Your task to perform on an android device: Go to Reddit.com Image 0: 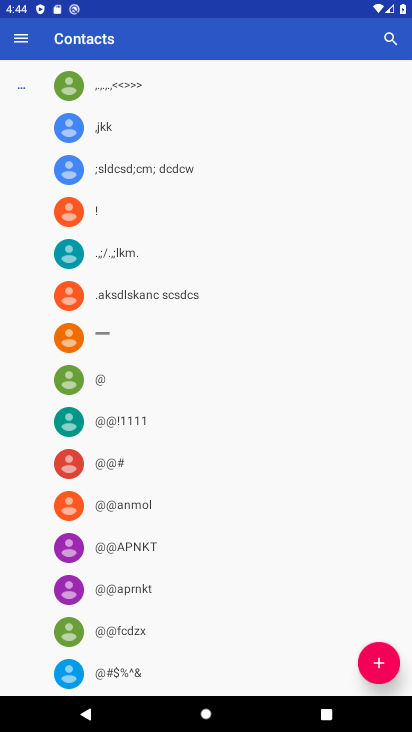
Step 0: press home button
Your task to perform on an android device: Go to Reddit.com Image 1: 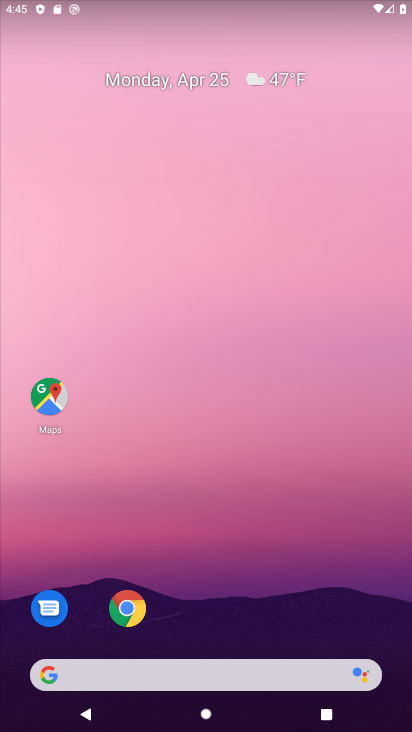
Step 1: click (119, 615)
Your task to perform on an android device: Go to Reddit.com Image 2: 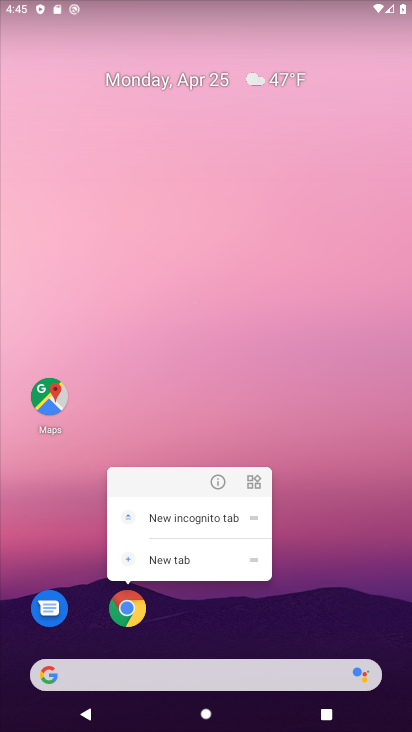
Step 2: click (119, 615)
Your task to perform on an android device: Go to Reddit.com Image 3: 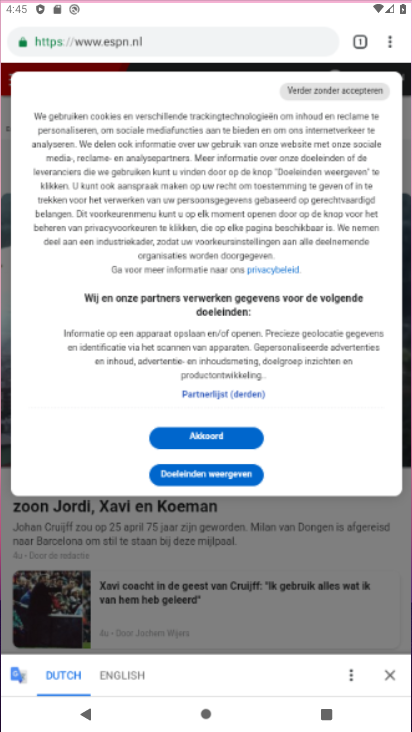
Step 3: click (121, 611)
Your task to perform on an android device: Go to Reddit.com Image 4: 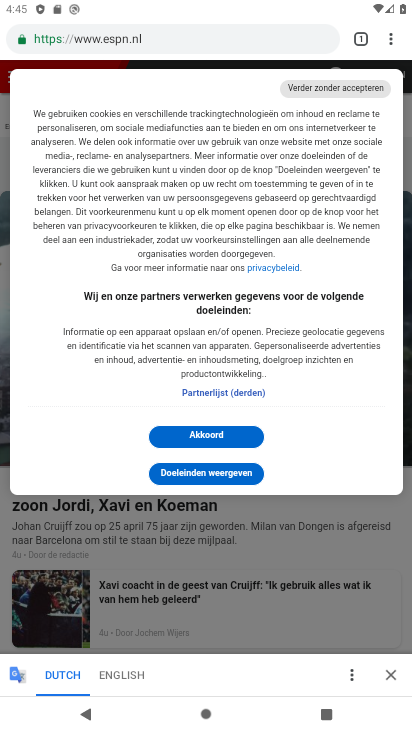
Step 4: click (155, 48)
Your task to perform on an android device: Go to Reddit.com Image 5: 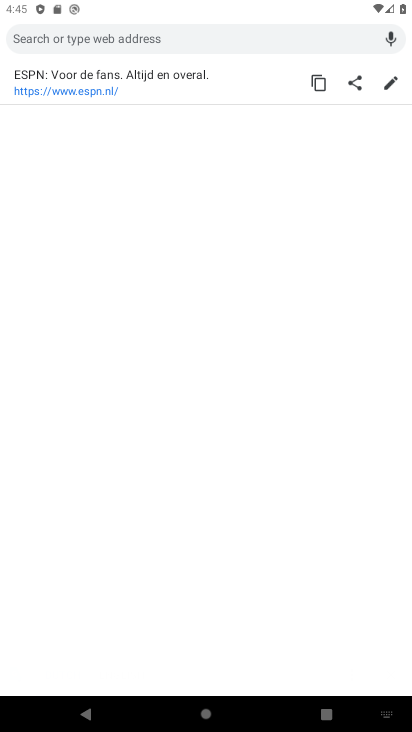
Step 5: type "reddit.com"
Your task to perform on an android device: Go to Reddit.com Image 6: 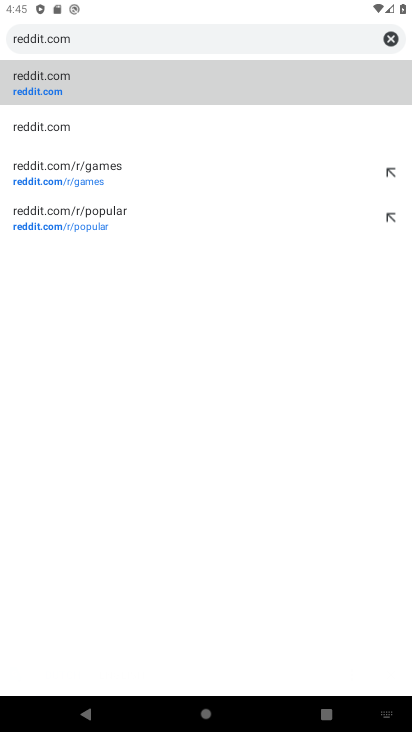
Step 6: click (24, 80)
Your task to perform on an android device: Go to Reddit.com Image 7: 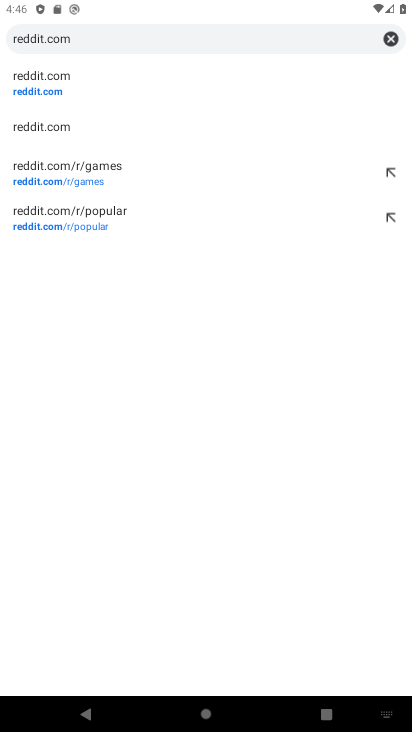
Step 7: click (76, 77)
Your task to perform on an android device: Go to Reddit.com Image 8: 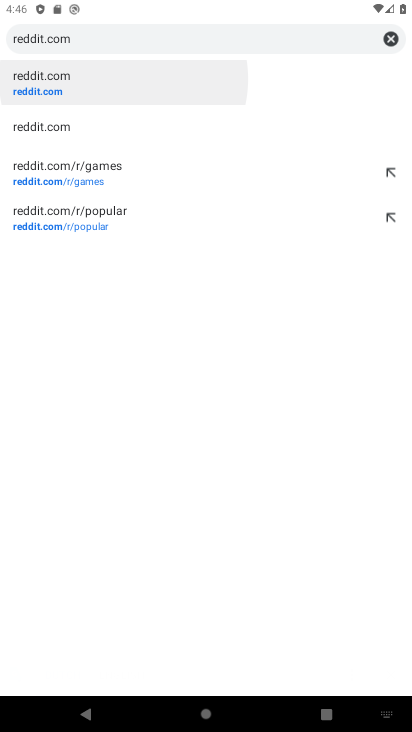
Step 8: click (76, 77)
Your task to perform on an android device: Go to Reddit.com Image 9: 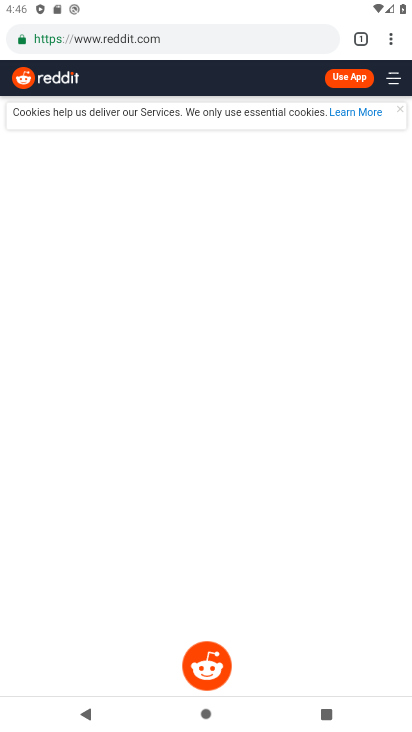
Step 9: task complete